Your task to perform on an android device: Do I have any events tomorrow? Image 0: 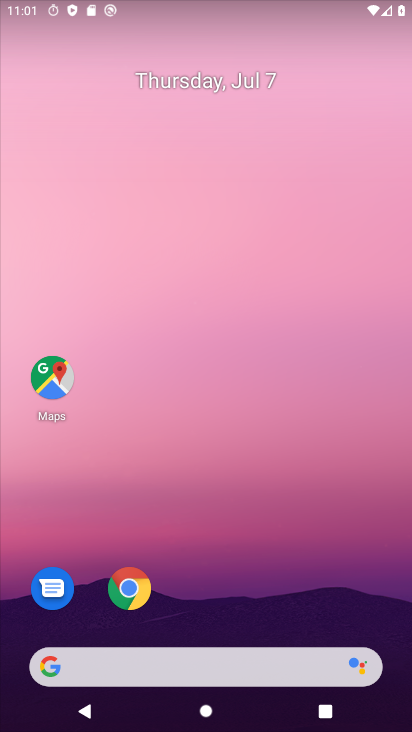
Step 0: drag from (254, 334) to (209, 0)
Your task to perform on an android device: Do I have any events tomorrow? Image 1: 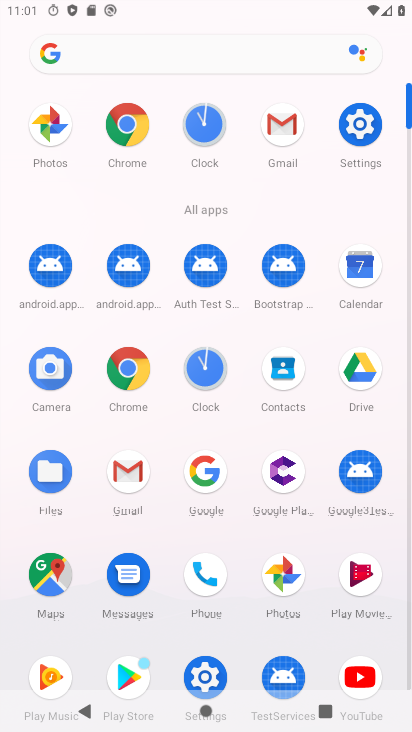
Step 1: click (360, 271)
Your task to perform on an android device: Do I have any events tomorrow? Image 2: 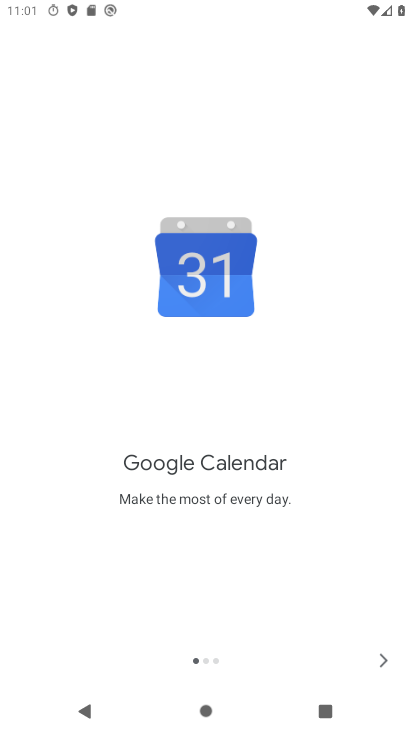
Step 2: click (389, 661)
Your task to perform on an android device: Do I have any events tomorrow? Image 3: 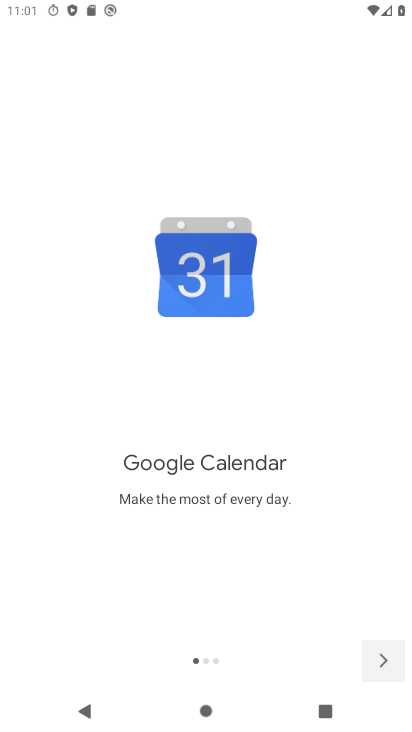
Step 3: click (389, 661)
Your task to perform on an android device: Do I have any events tomorrow? Image 4: 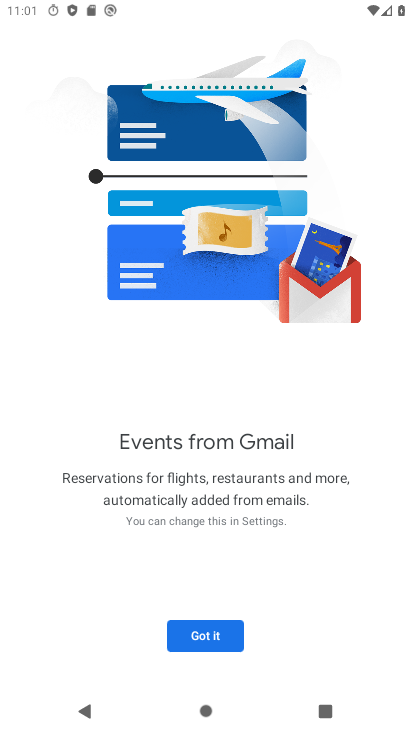
Step 4: click (222, 636)
Your task to perform on an android device: Do I have any events tomorrow? Image 5: 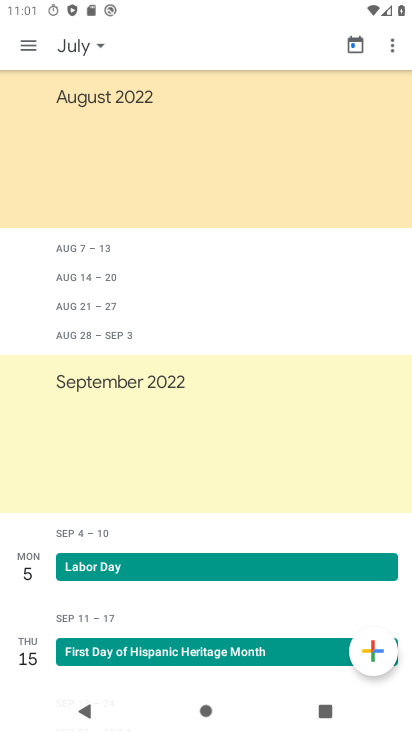
Step 5: click (72, 45)
Your task to perform on an android device: Do I have any events tomorrow? Image 6: 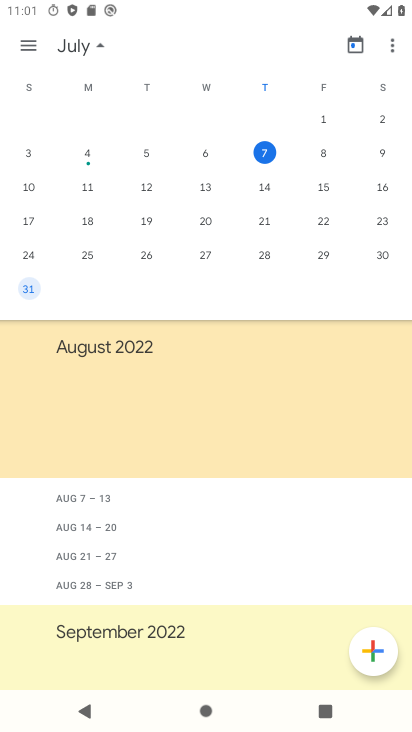
Step 6: click (328, 153)
Your task to perform on an android device: Do I have any events tomorrow? Image 7: 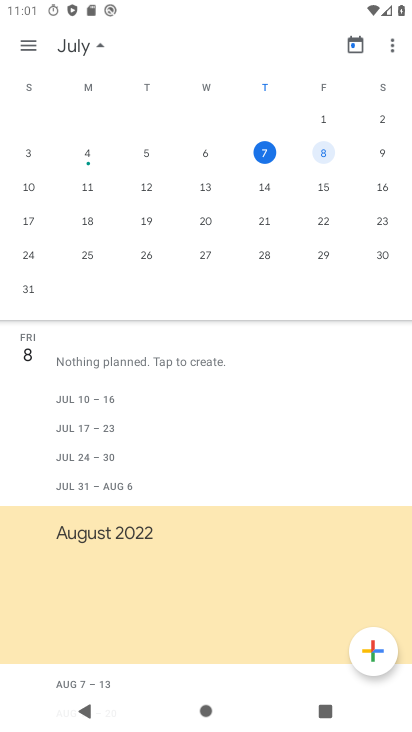
Step 7: click (331, 150)
Your task to perform on an android device: Do I have any events tomorrow? Image 8: 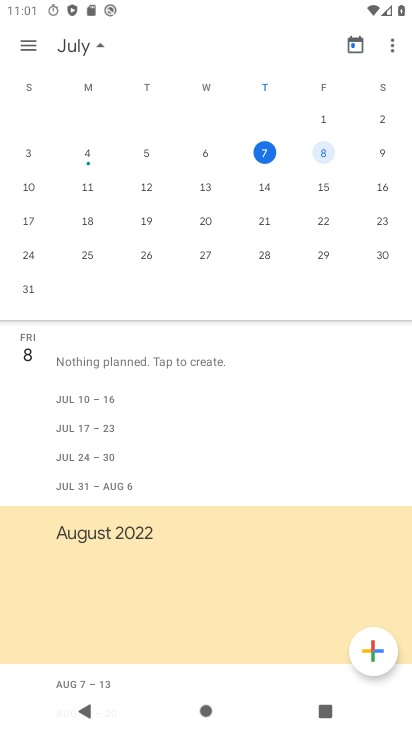
Step 8: click (319, 151)
Your task to perform on an android device: Do I have any events tomorrow? Image 9: 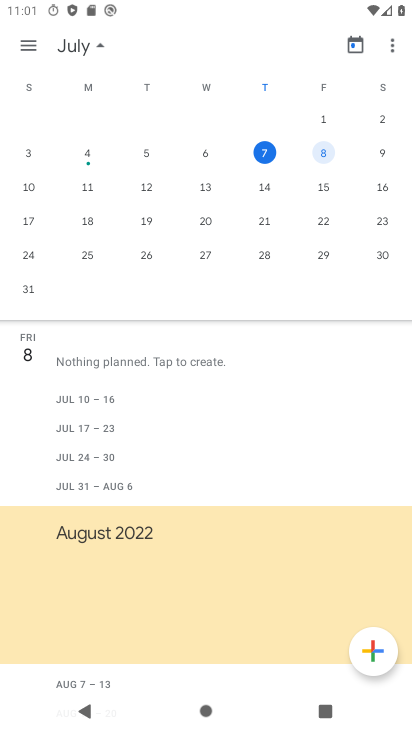
Step 9: task complete